Your task to perform on an android device: open a new tab in the chrome app Image 0: 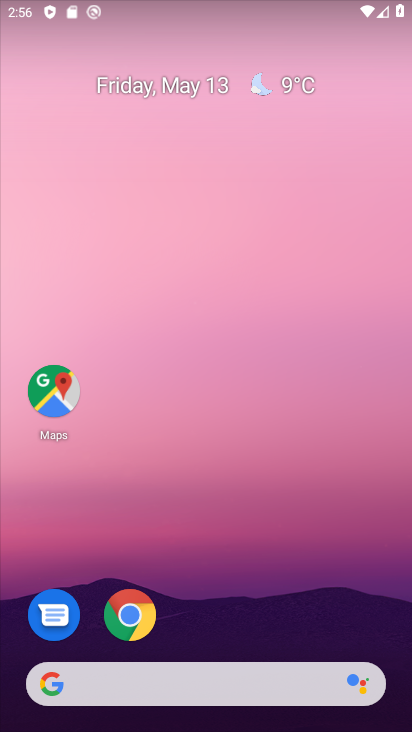
Step 0: click (126, 615)
Your task to perform on an android device: open a new tab in the chrome app Image 1: 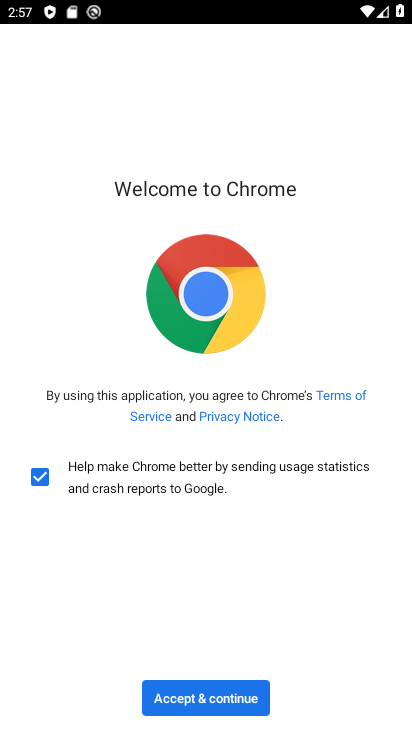
Step 1: click (186, 698)
Your task to perform on an android device: open a new tab in the chrome app Image 2: 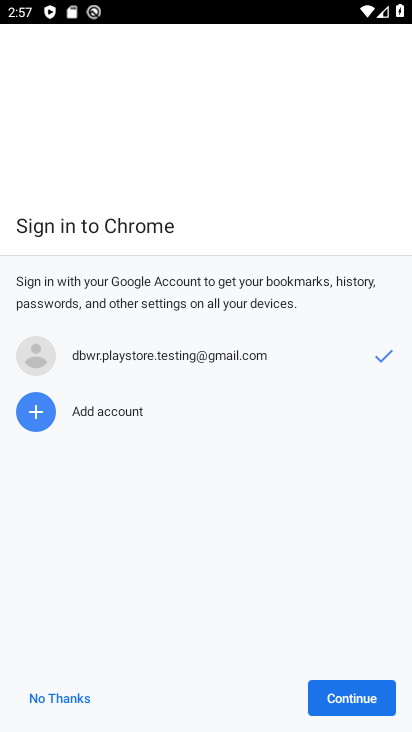
Step 2: click (365, 694)
Your task to perform on an android device: open a new tab in the chrome app Image 3: 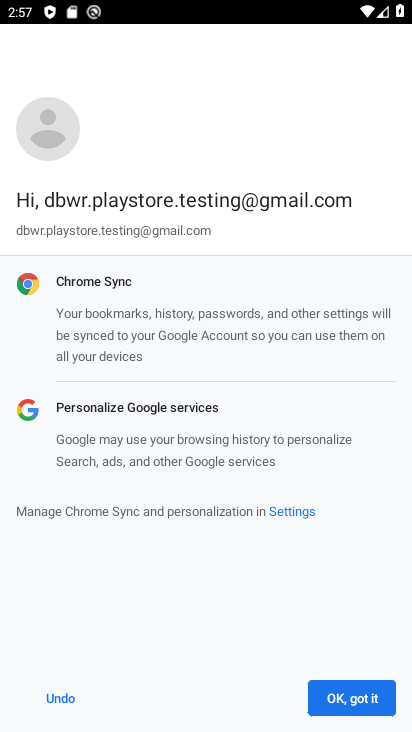
Step 3: click (353, 698)
Your task to perform on an android device: open a new tab in the chrome app Image 4: 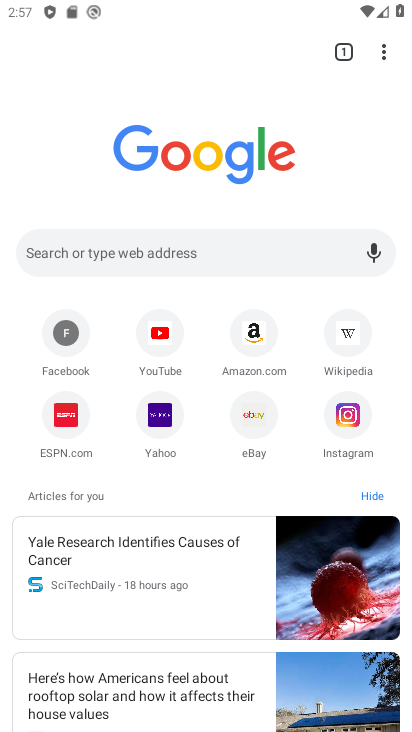
Step 4: click (384, 59)
Your task to perform on an android device: open a new tab in the chrome app Image 5: 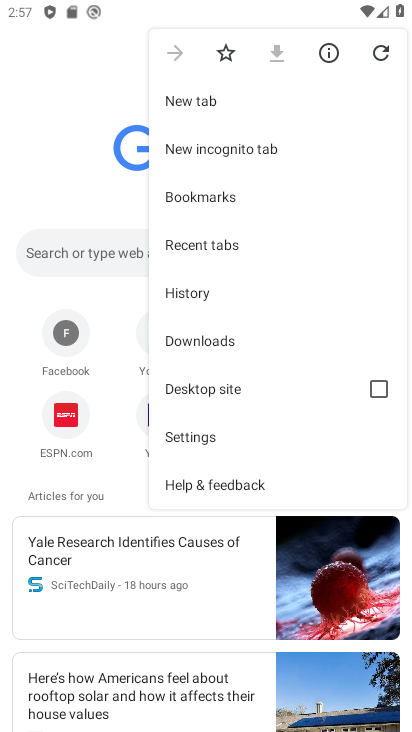
Step 5: click (213, 101)
Your task to perform on an android device: open a new tab in the chrome app Image 6: 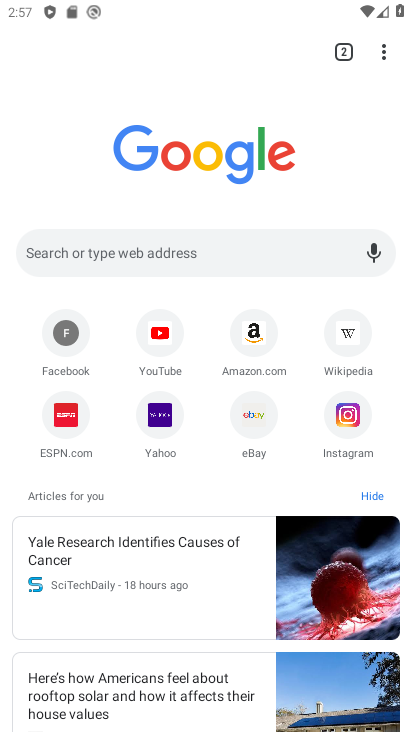
Step 6: task complete